Your task to perform on an android device: turn on notifications settings in the gmail app Image 0: 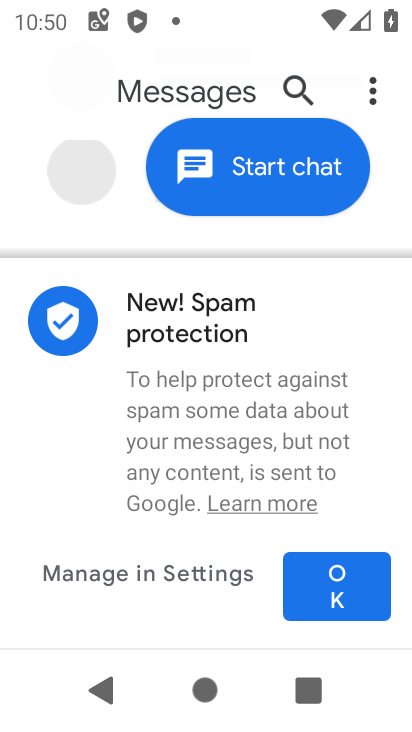
Step 0: press home button
Your task to perform on an android device: turn on notifications settings in the gmail app Image 1: 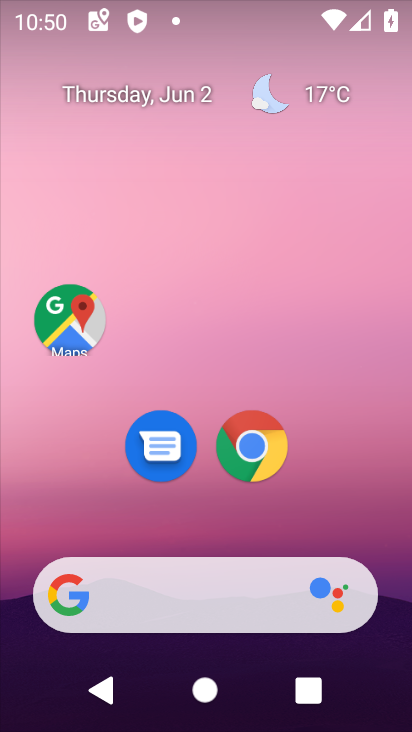
Step 1: drag from (321, 486) to (316, 128)
Your task to perform on an android device: turn on notifications settings in the gmail app Image 2: 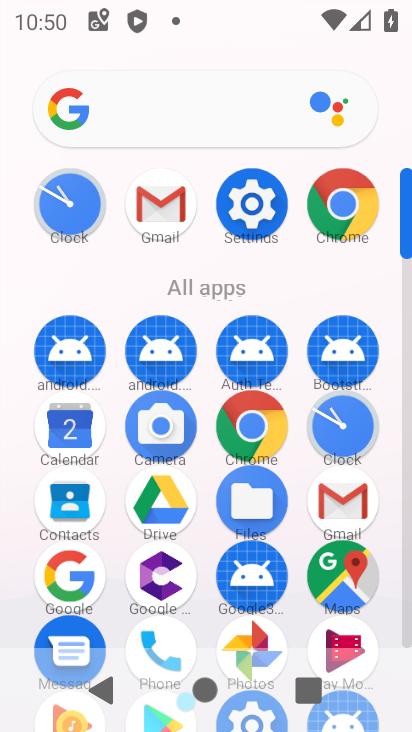
Step 2: click (166, 215)
Your task to perform on an android device: turn on notifications settings in the gmail app Image 3: 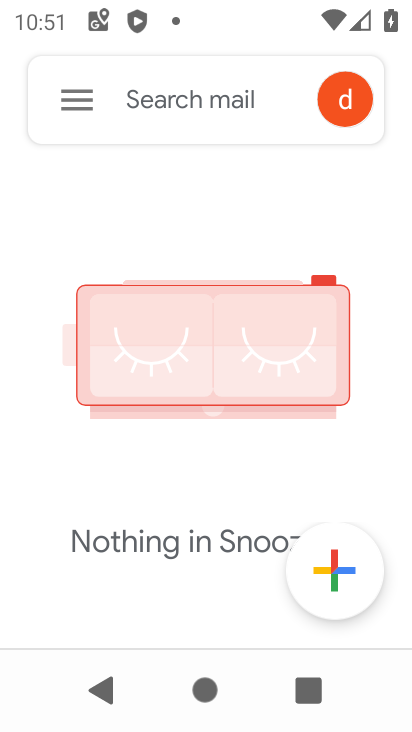
Step 3: click (86, 99)
Your task to perform on an android device: turn on notifications settings in the gmail app Image 4: 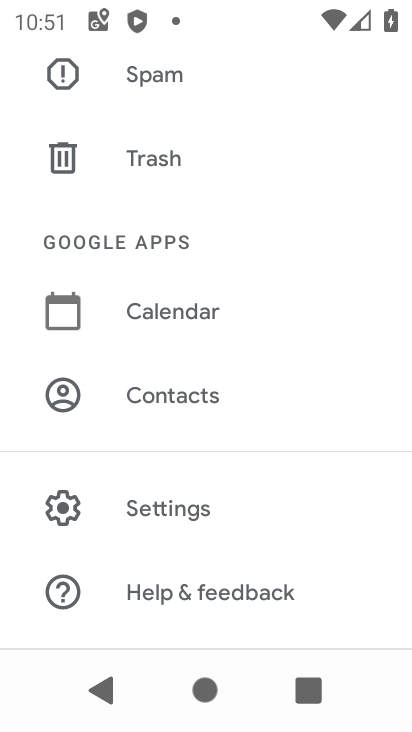
Step 4: click (173, 509)
Your task to perform on an android device: turn on notifications settings in the gmail app Image 5: 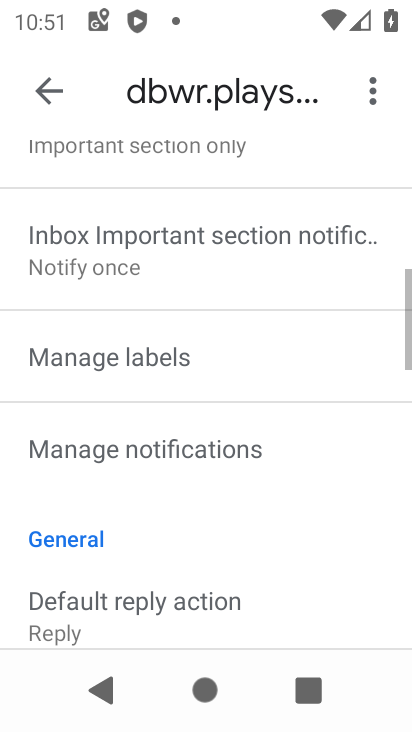
Step 5: drag from (188, 186) to (262, 642)
Your task to perform on an android device: turn on notifications settings in the gmail app Image 6: 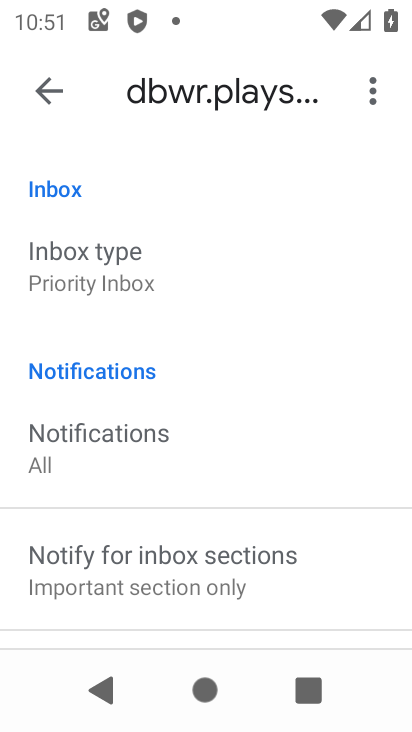
Step 6: drag from (191, 363) to (210, 184)
Your task to perform on an android device: turn on notifications settings in the gmail app Image 7: 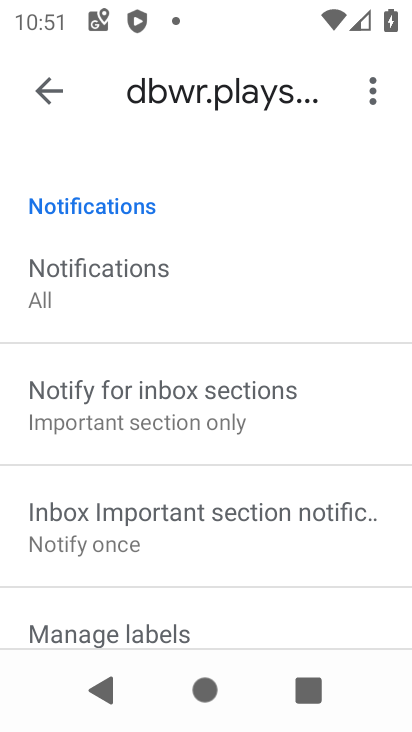
Step 7: drag from (177, 500) to (200, 260)
Your task to perform on an android device: turn on notifications settings in the gmail app Image 8: 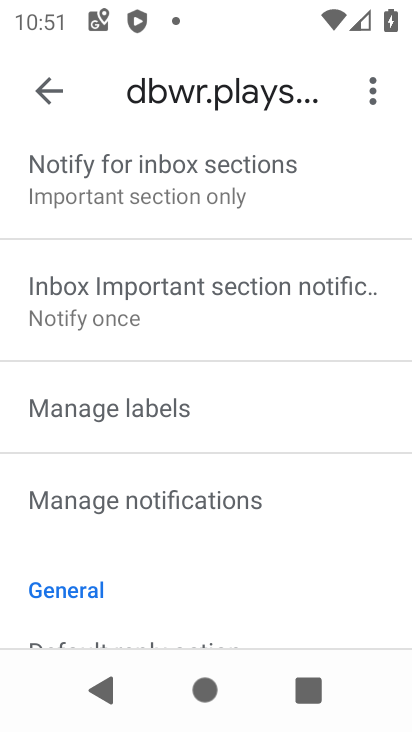
Step 8: click (181, 492)
Your task to perform on an android device: turn on notifications settings in the gmail app Image 9: 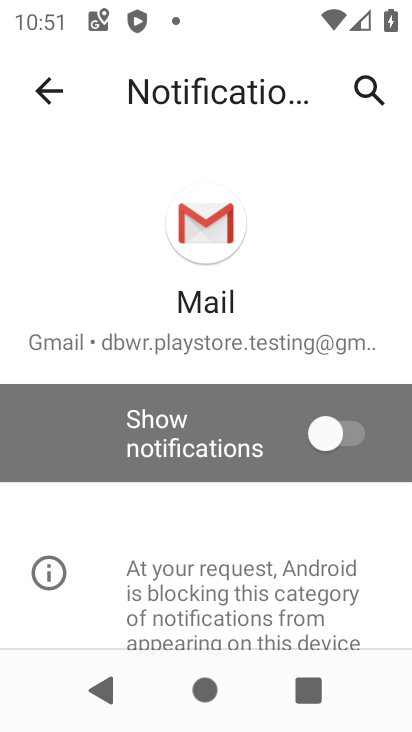
Step 9: click (354, 442)
Your task to perform on an android device: turn on notifications settings in the gmail app Image 10: 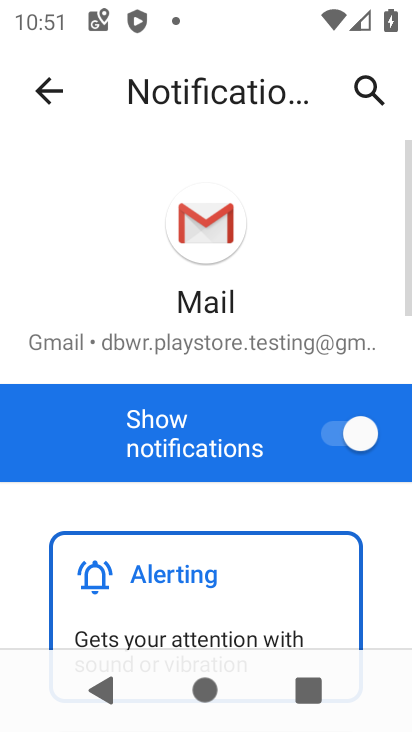
Step 10: task complete